Your task to perform on an android device: turn on javascript in the chrome app Image 0: 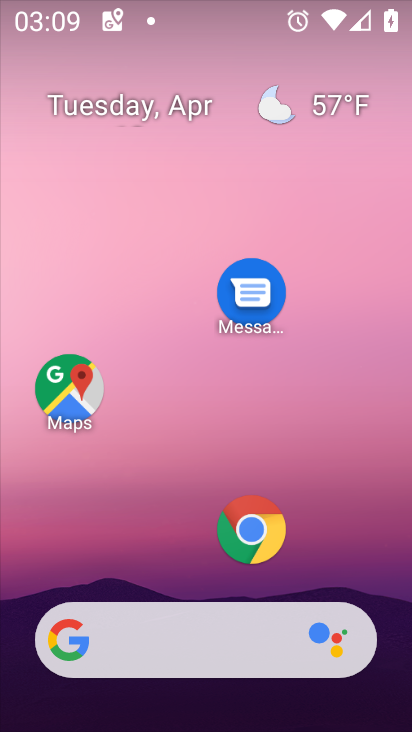
Step 0: click (249, 528)
Your task to perform on an android device: turn on javascript in the chrome app Image 1: 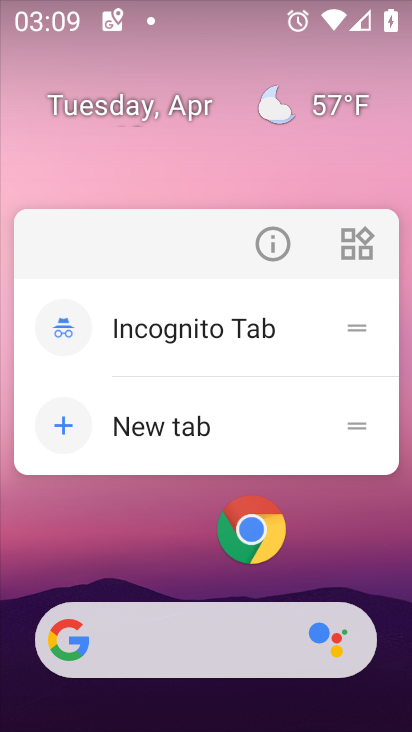
Step 1: click (249, 528)
Your task to perform on an android device: turn on javascript in the chrome app Image 2: 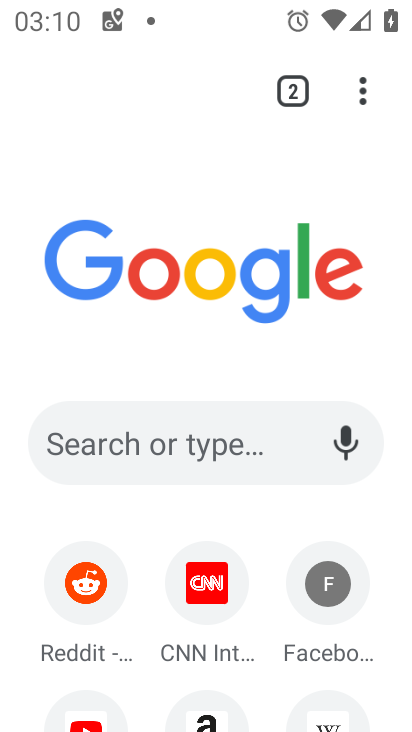
Step 2: click (365, 89)
Your task to perform on an android device: turn on javascript in the chrome app Image 3: 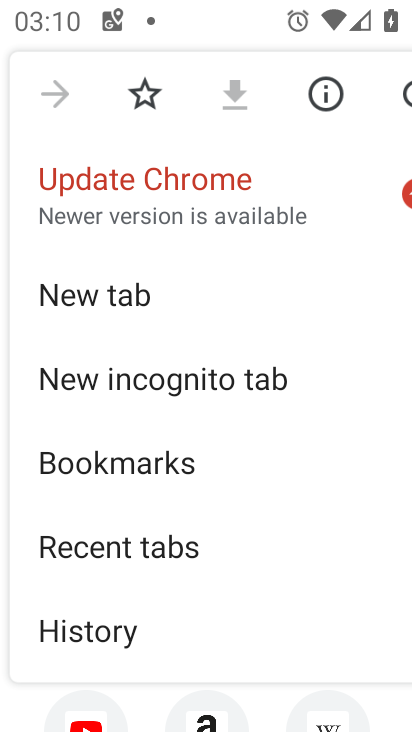
Step 3: drag from (230, 539) to (293, 114)
Your task to perform on an android device: turn on javascript in the chrome app Image 4: 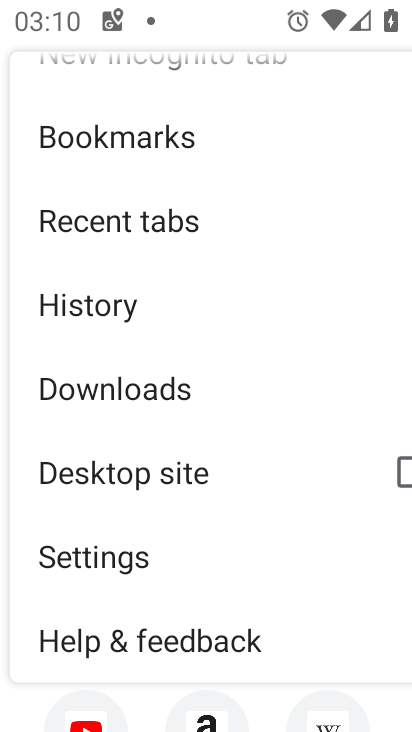
Step 4: click (130, 555)
Your task to perform on an android device: turn on javascript in the chrome app Image 5: 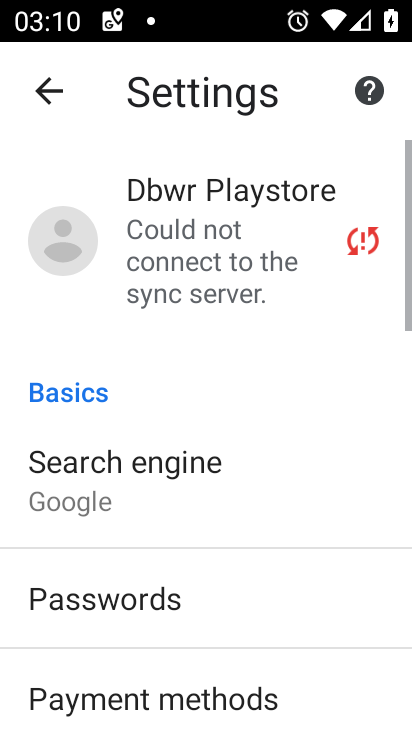
Step 5: drag from (240, 527) to (250, 72)
Your task to perform on an android device: turn on javascript in the chrome app Image 6: 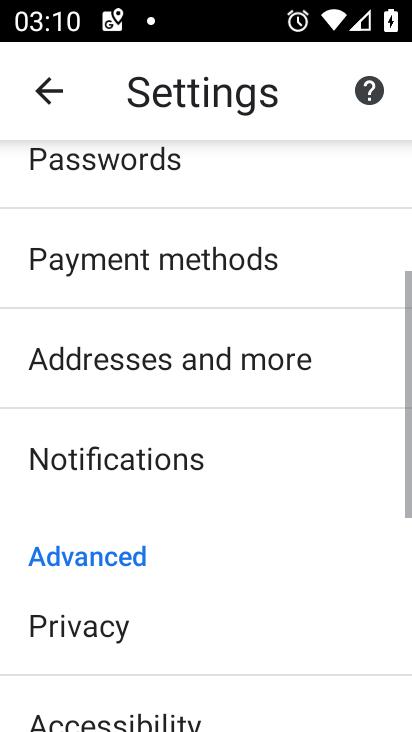
Step 6: drag from (211, 558) to (184, 167)
Your task to perform on an android device: turn on javascript in the chrome app Image 7: 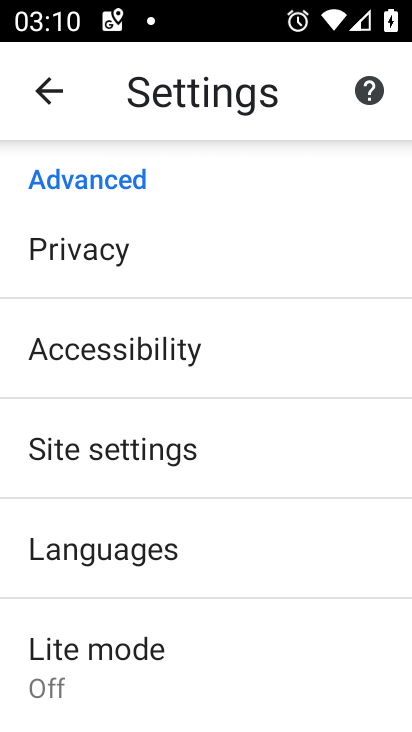
Step 7: click (114, 448)
Your task to perform on an android device: turn on javascript in the chrome app Image 8: 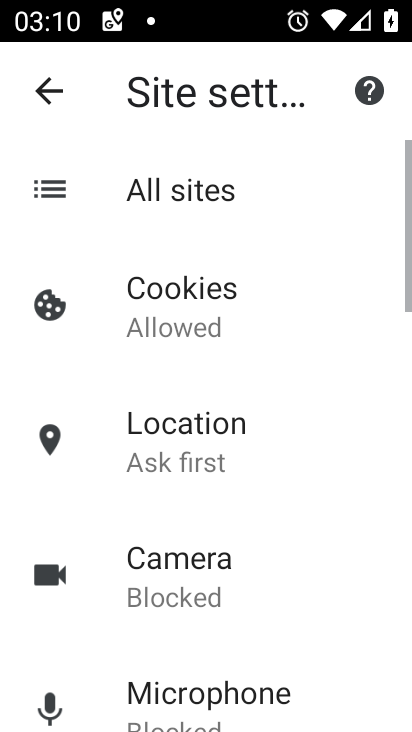
Step 8: drag from (186, 611) to (193, 144)
Your task to perform on an android device: turn on javascript in the chrome app Image 9: 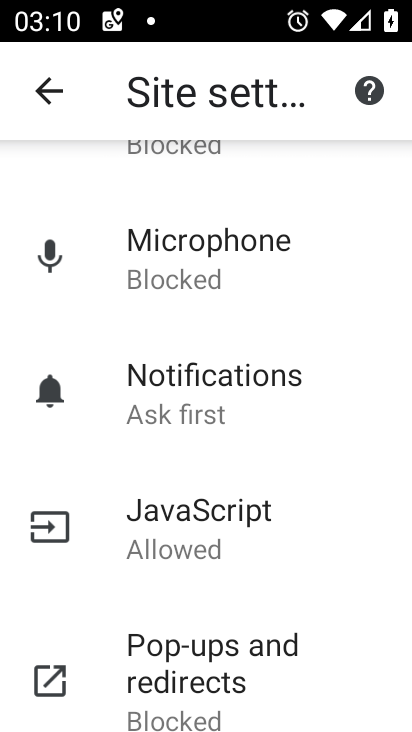
Step 9: click (166, 522)
Your task to perform on an android device: turn on javascript in the chrome app Image 10: 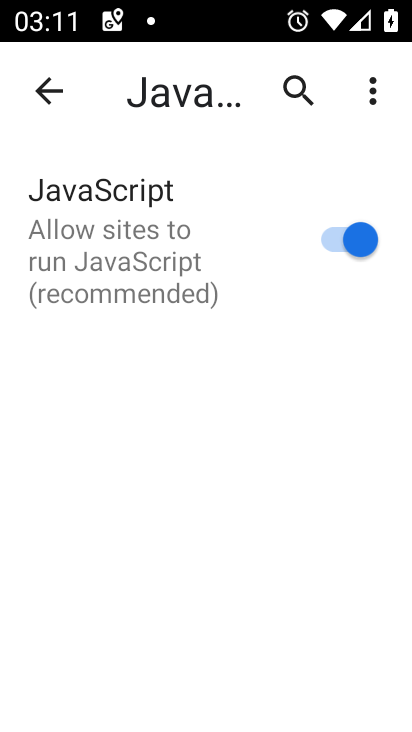
Step 10: task complete